Your task to perform on an android device: Go to Amazon Image 0: 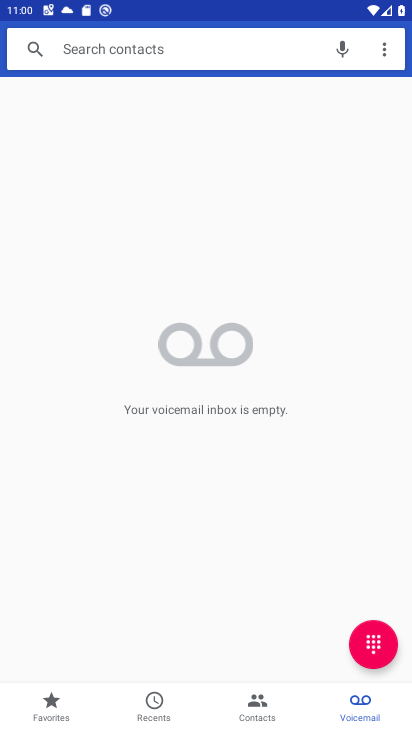
Step 0: press home button
Your task to perform on an android device: Go to Amazon Image 1: 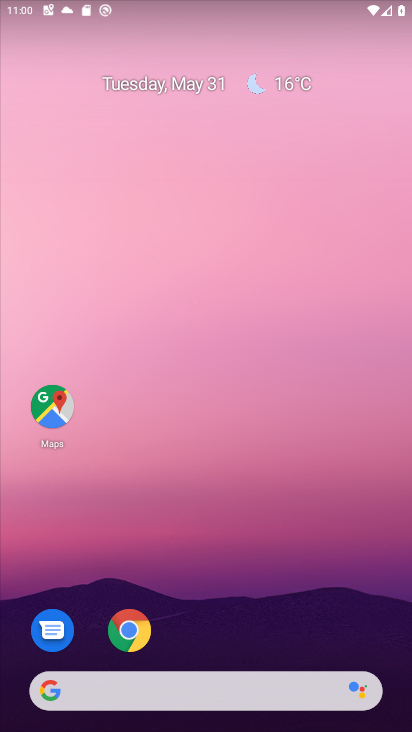
Step 1: click (132, 628)
Your task to perform on an android device: Go to Amazon Image 2: 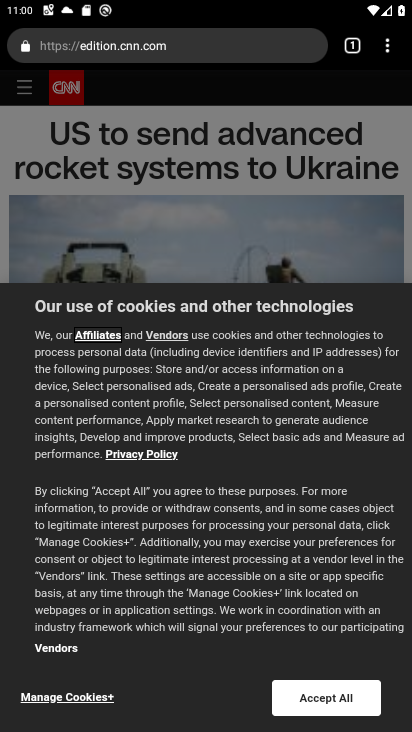
Step 2: click (274, 37)
Your task to perform on an android device: Go to Amazon Image 3: 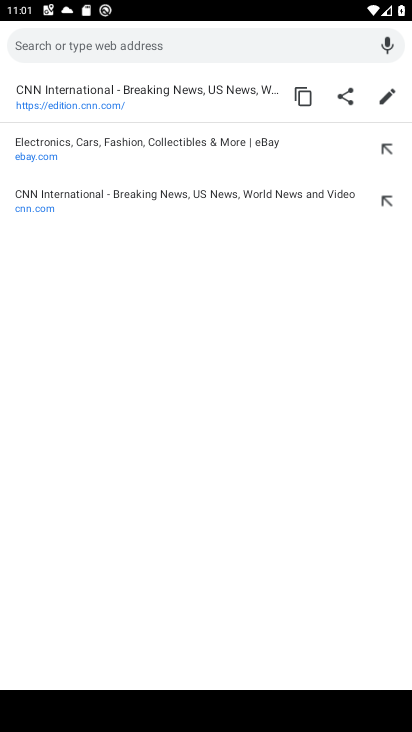
Step 3: type "amazon"
Your task to perform on an android device: Go to Amazon Image 4: 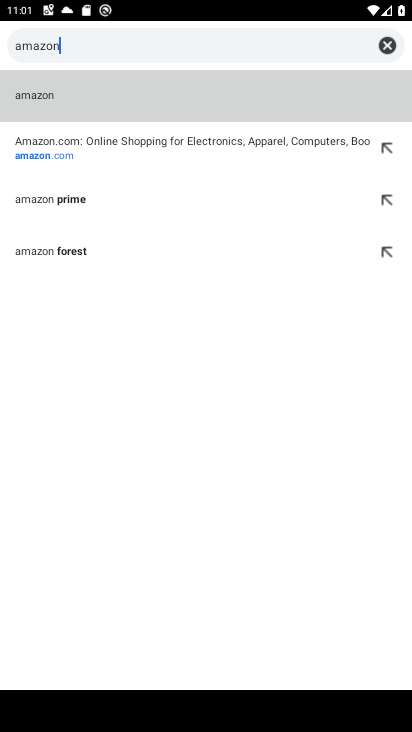
Step 4: click (52, 150)
Your task to perform on an android device: Go to Amazon Image 5: 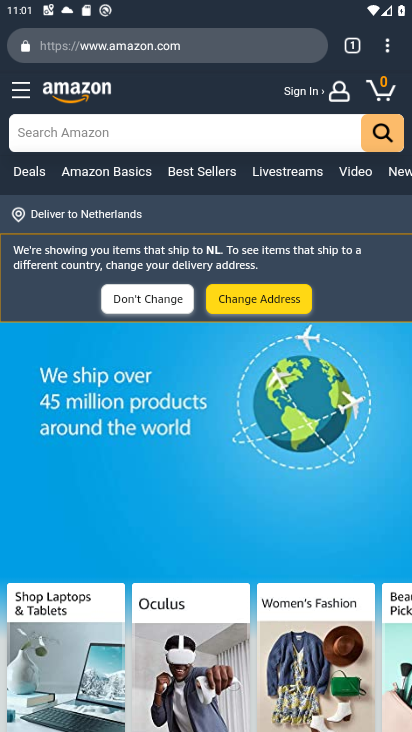
Step 5: task complete